Your task to perform on an android device: Open Chrome and go to settings Image 0: 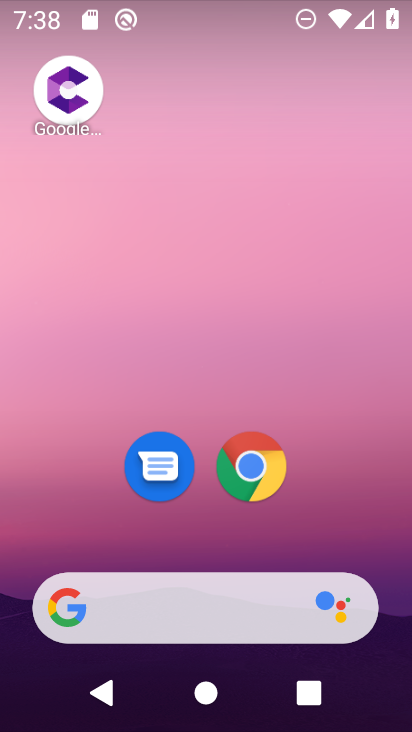
Step 0: click (274, 482)
Your task to perform on an android device: Open Chrome and go to settings Image 1: 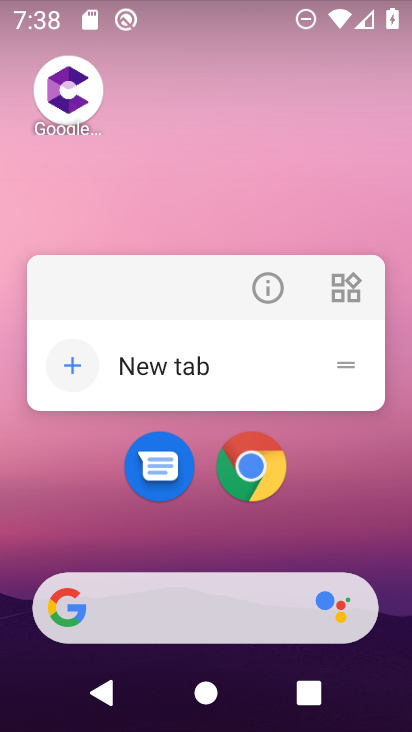
Step 1: click (250, 483)
Your task to perform on an android device: Open Chrome and go to settings Image 2: 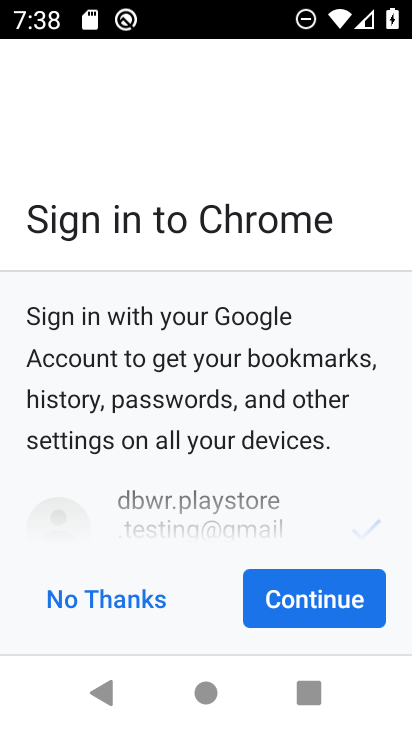
Step 2: click (305, 612)
Your task to perform on an android device: Open Chrome and go to settings Image 3: 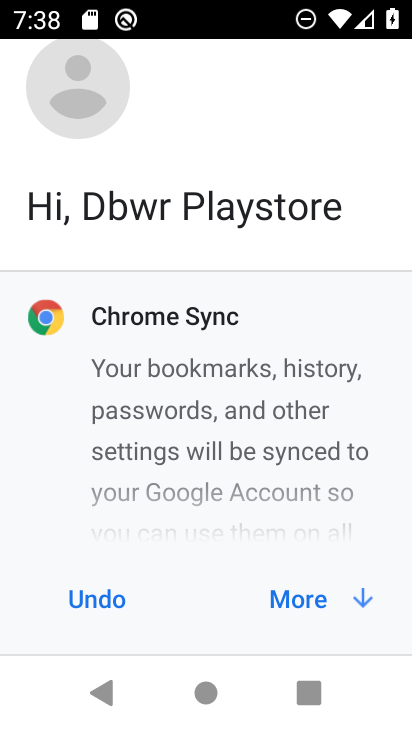
Step 3: click (330, 611)
Your task to perform on an android device: Open Chrome and go to settings Image 4: 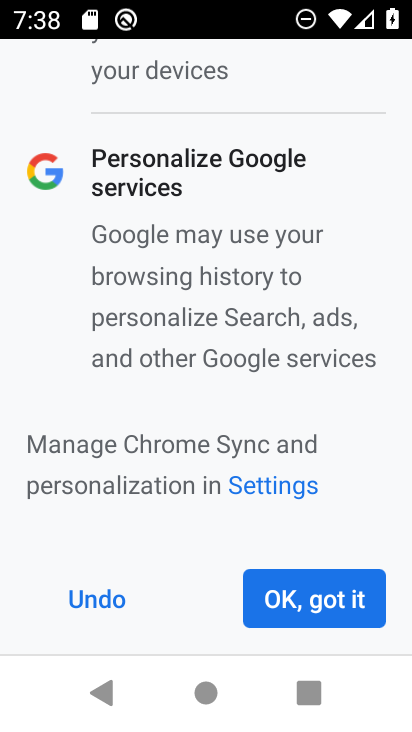
Step 4: click (331, 607)
Your task to perform on an android device: Open Chrome and go to settings Image 5: 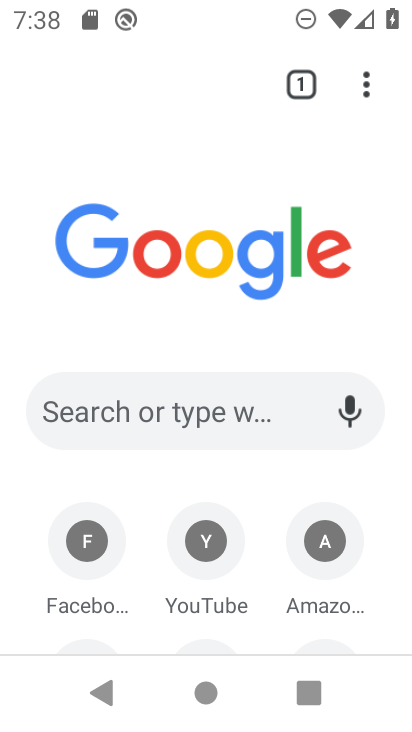
Step 5: click (370, 73)
Your task to perform on an android device: Open Chrome and go to settings Image 6: 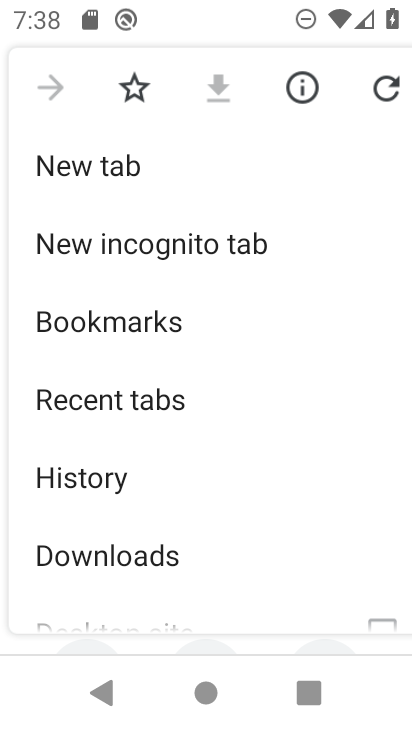
Step 6: drag from (200, 580) to (201, 203)
Your task to perform on an android device: Open Chrome and go to settings Image 7: 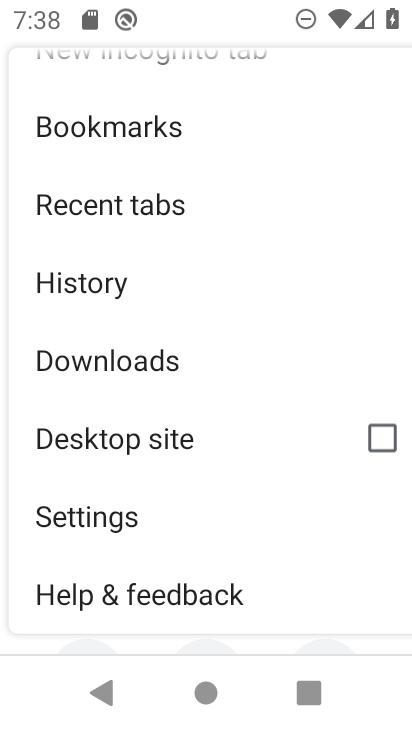
Step 7: click (106, 537)
Your task to perform on an android device: Open Chrome and go to settings Image 8: 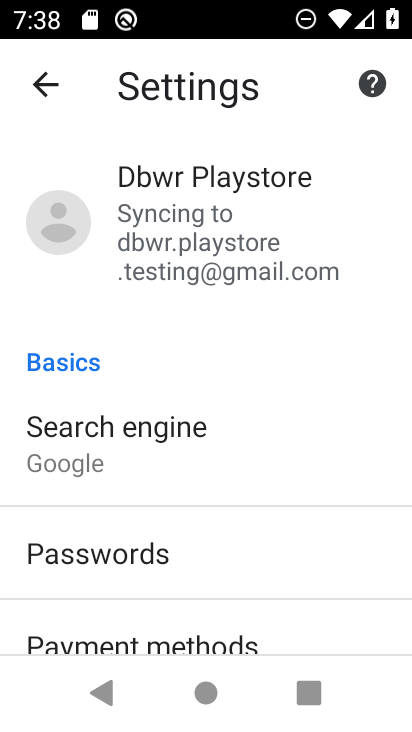
Step 8: task complete